Your task to perform on an android device: Go to display settings Image 0: 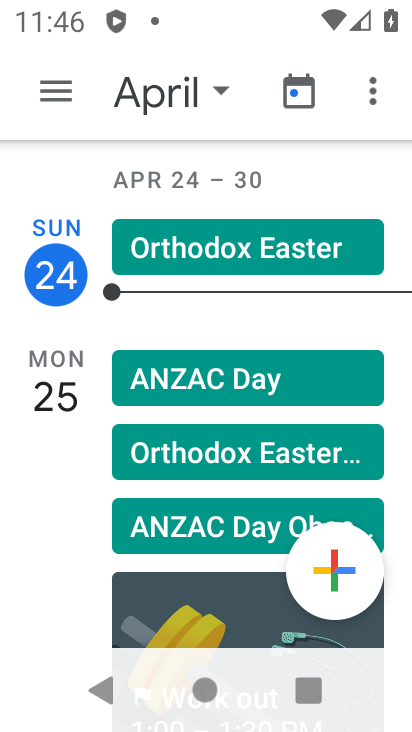
Step 0: press home button
Your task to perform on an android device: Go to display settings Image 1: 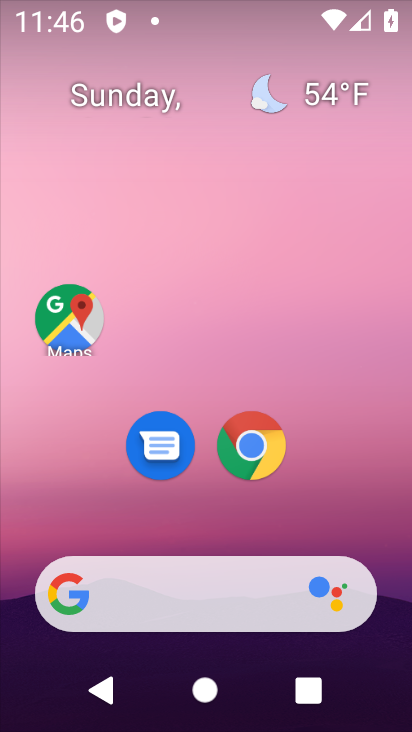
Step 1: drag from (346, 461) to (352, 94)
Your task to perform on an android device: Go to display settings Image 2: 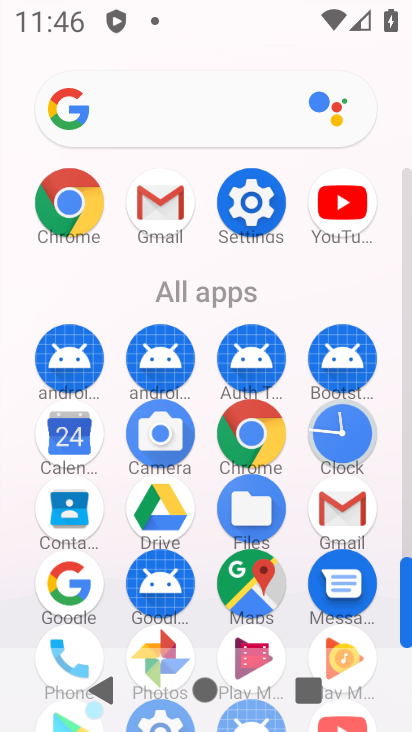
Step 2: click (262, 206)
Your task to perform on an android device: Go to display settings Image 3: 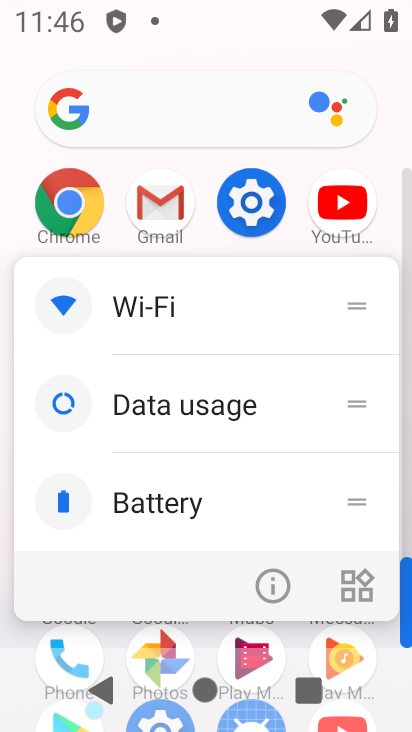
Step 3: click (272, 194)
Your task to perform on an android device: Go to display settings Image 4: 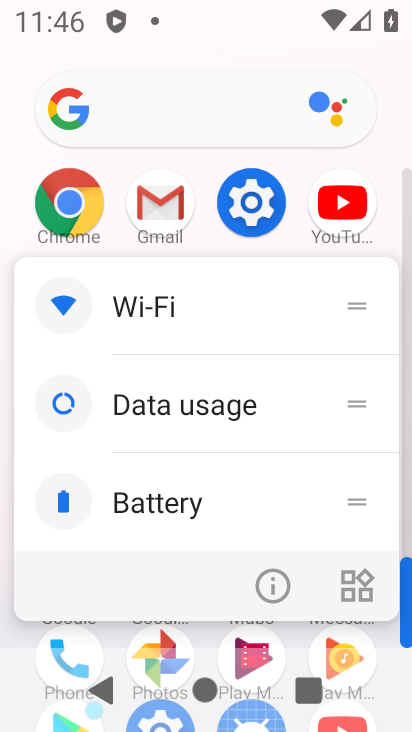
Step 4: drag from (389, 221) to (398, 29)
Your task to perform on an android device: Go to display settings Image 5: 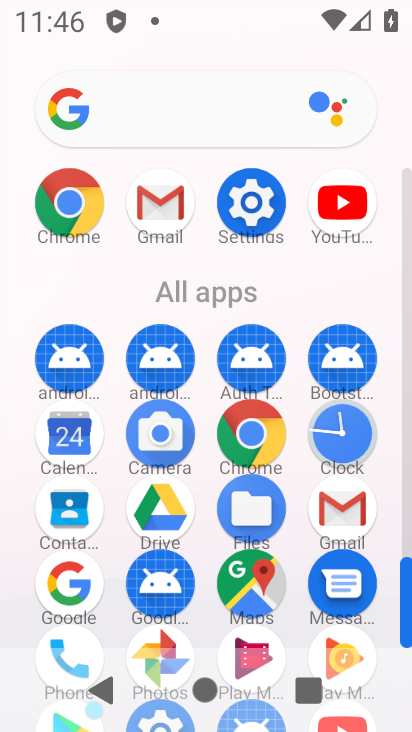
Step 5: drag from (389, 550) to (394, 161)
Your task to perform on an android device: Go to display settings Image 6: 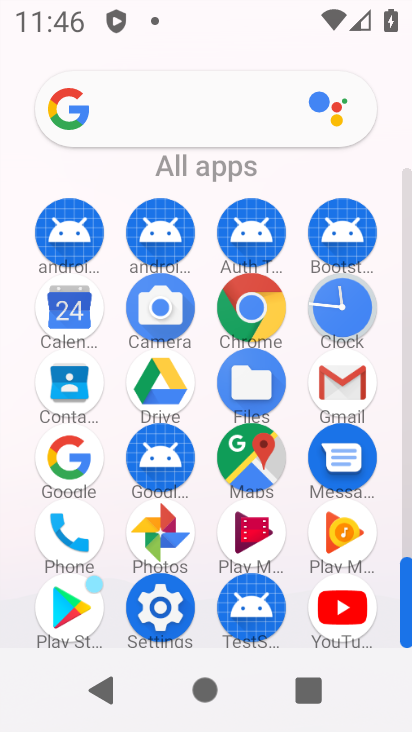
Step 6: click (174, 606)
Your task to perform on an android device: Go to display settings Image 7: 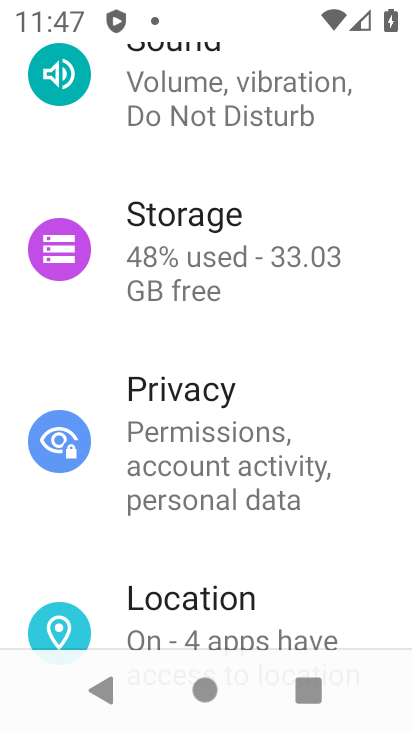
Step 7: drag from (326, 551) to (330, 281)
Your task to perform on an android device: Go to display settings Image 8: 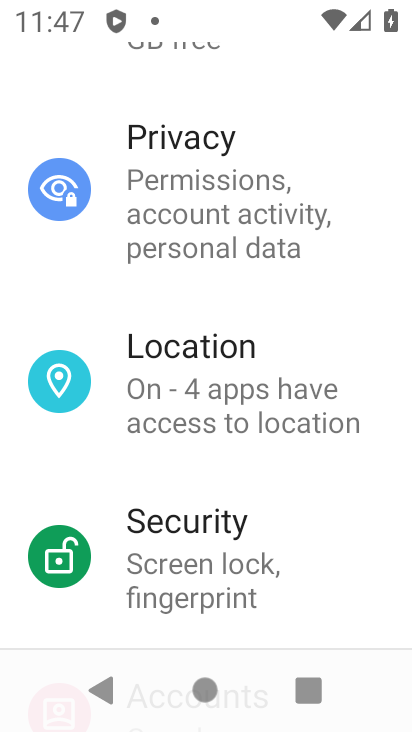
Step 8: drag from (327, 180) to (333, 472)
Your task to perform on an android device: Go to display settings Image 9: 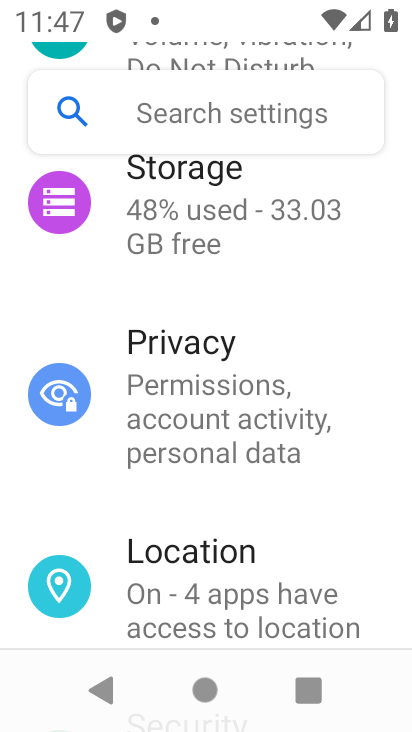
Step 9: drag from (290, 200) to (321, 539)
Your task to perform on an android device: Go to display settings Image 10: 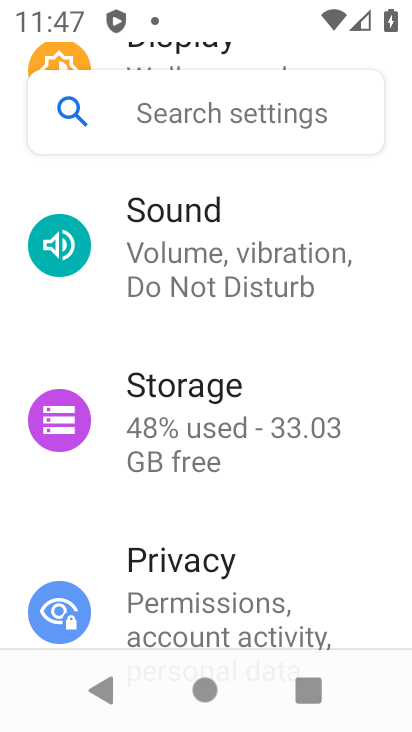
Step 10: drag from (291, 323) to (321, 594)
Your task to perform on an android device: Go to display settings Image 11: 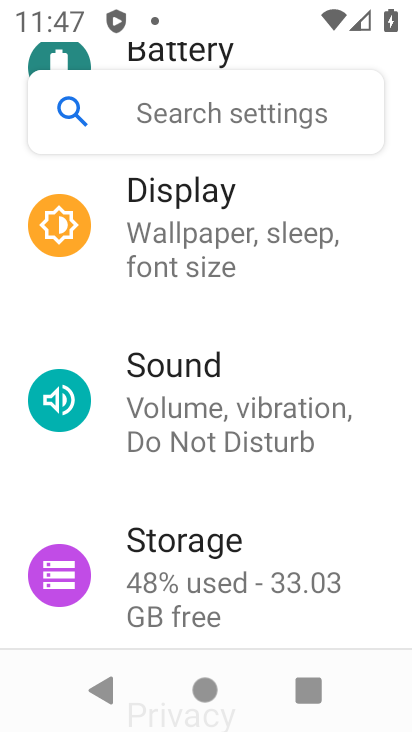
Step 11: click (257, 238)
Your task to perform on an android device: Go to display settings Image 12: 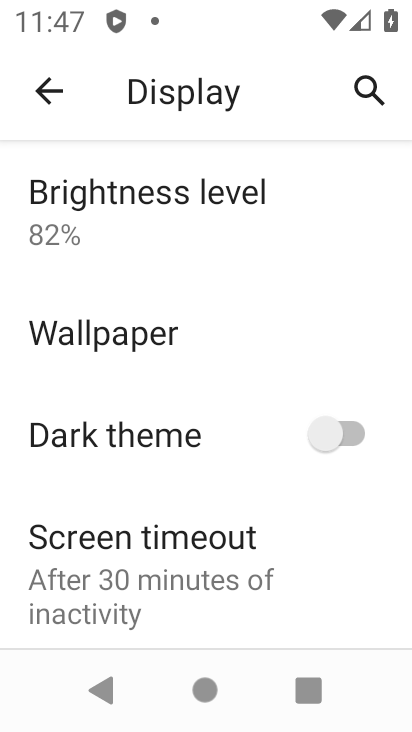
Step 12: task complete